Your task to perform on an android device: Open the Play Movies app and select the watchlist tab. Image 0: 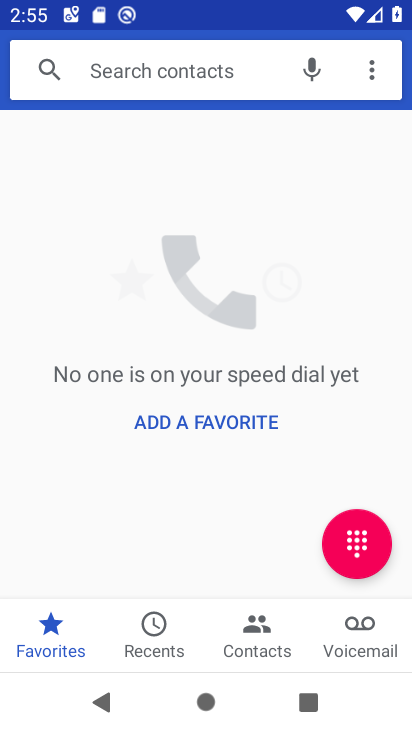
Step 0: press home button
Your task to perform on an android device: Open the Play Movies app and select the watchlist tab. Image 1: 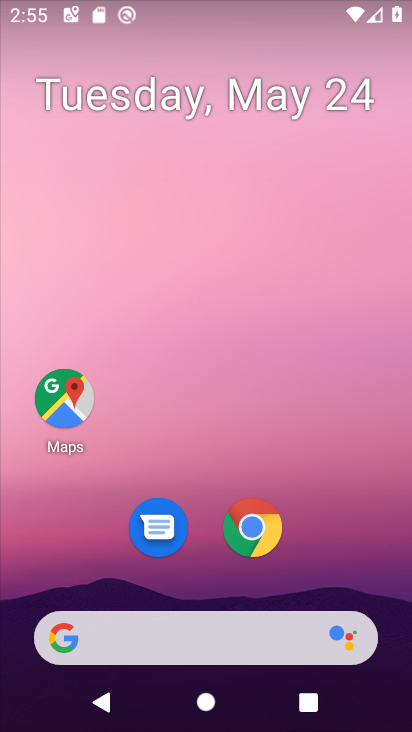
Step 1: drag from (342, 592) to (334, 0)
Your task to perform on an android device: Open the Play Movies app and select the watchlist tab. Image 2: 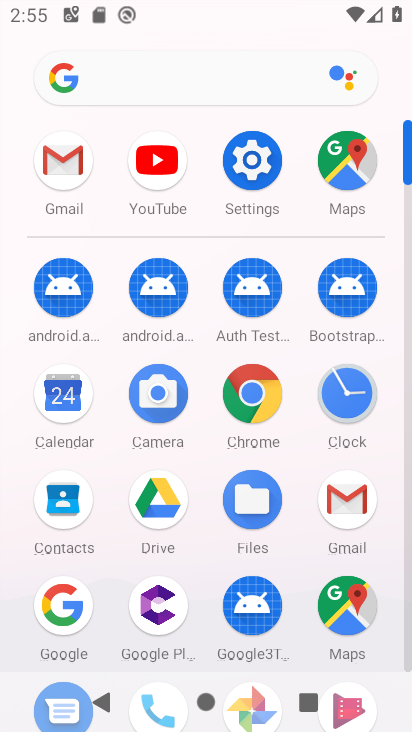
Step 2: click (410, 509)
Your task to perform on an android device: Open the Play Movies app and select the watchlist tab. Image 3: 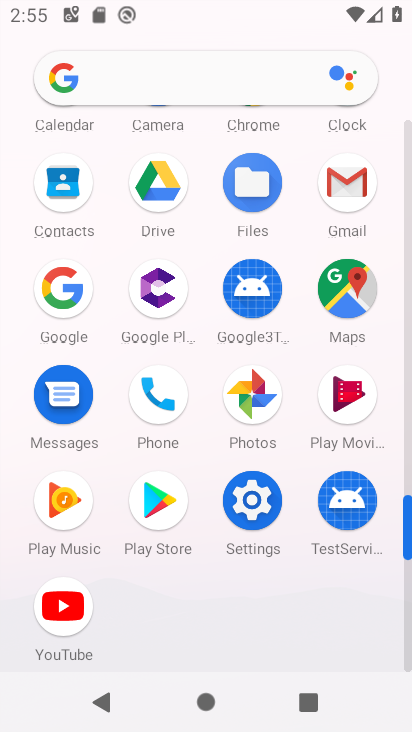
Step 3: click (346, 401)
Your task to perform on an android device: Open the Play Movies app and select the watchlist tab. Image 4: 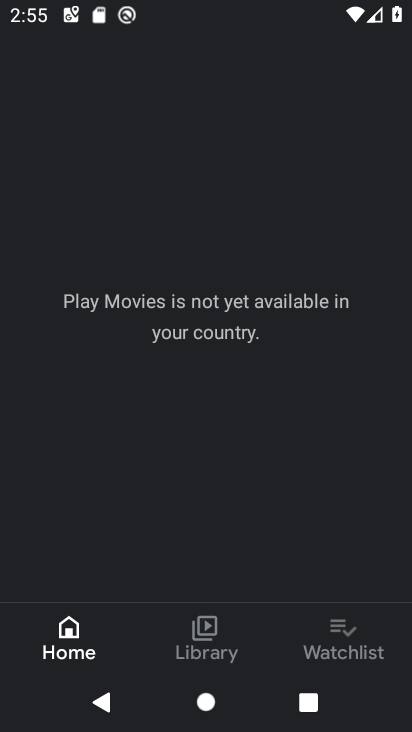
Step 4: click (364, 660)
Your task to perform on an android device: Open the Play Movies app and select the watchlist tab. Image 5: 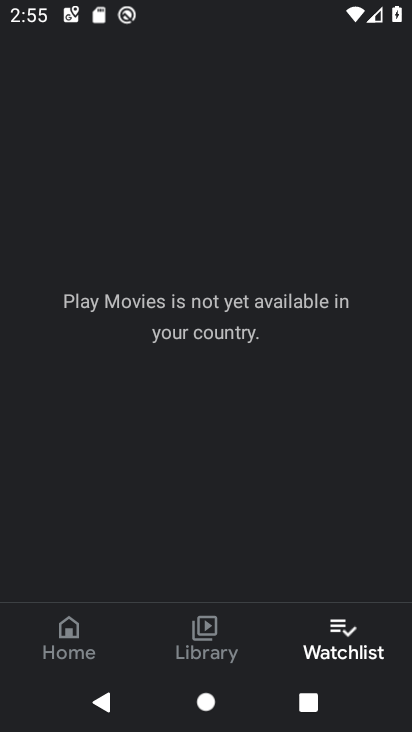
Step 5: task complete